Your task to perform on an android device: empty trash in the gmail app Image 0: 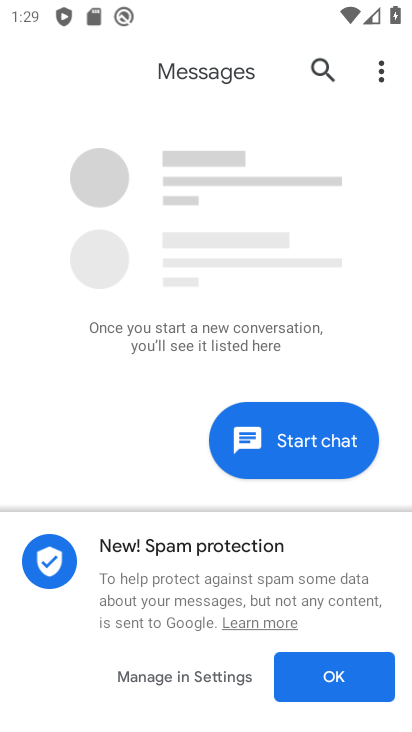
Step 0: press home button
Your task to perform on an android device: empty trash in the gmail app Image 1: 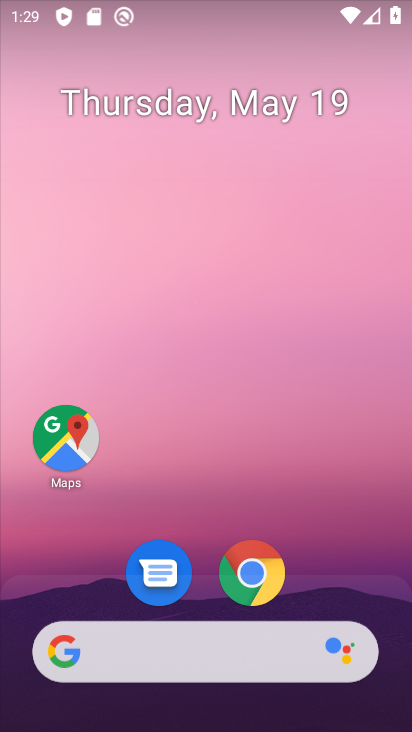
Step 1: drag from (392, 612) to (327, 154)
Your task to perform on an android device: empty trash in the gmail app Image 2: 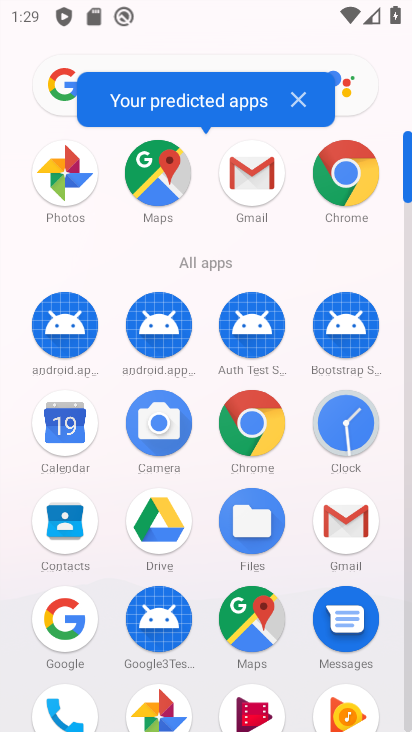
Step 2: click (405, 707)
Your task to perform on an android device: empty trash in the gmail app Image 3: 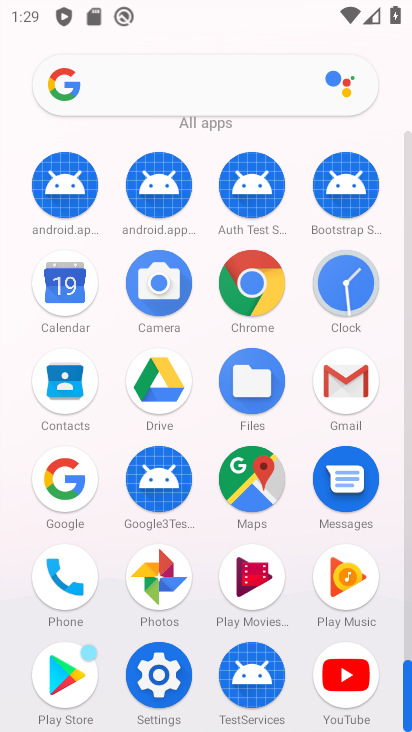
Step 3: click (342, 382)
Your task to perform on an android device: empty trash in the gmail app Image 4: 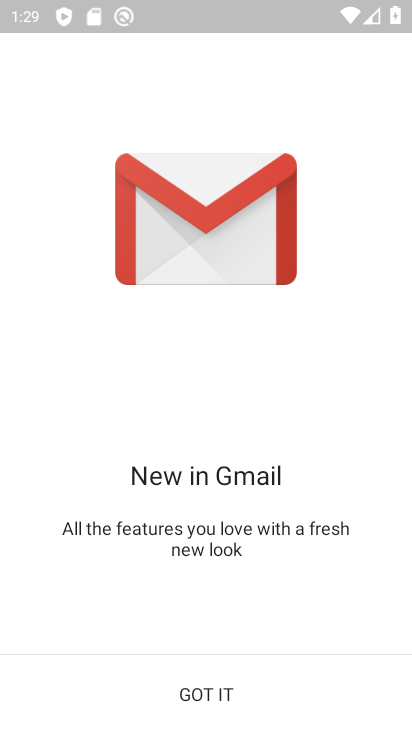
Step 4: click (211, 685)
Your task to perform on an android device: empty trash in the gmail app Image 5: 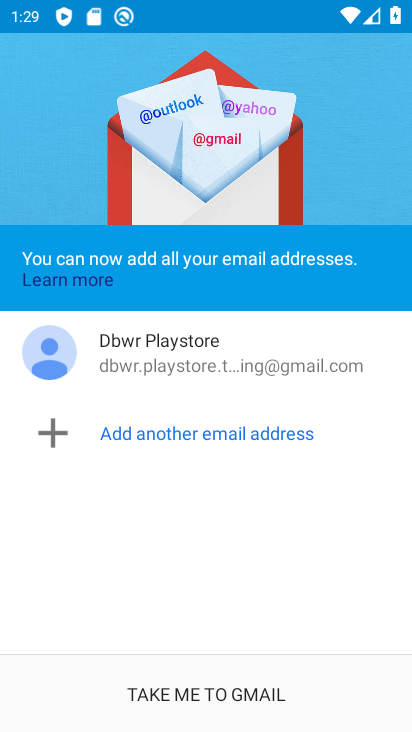
Step 5: click (199, 695)
Your task to perform on an android device: empty trash in the gmail app Image 6: 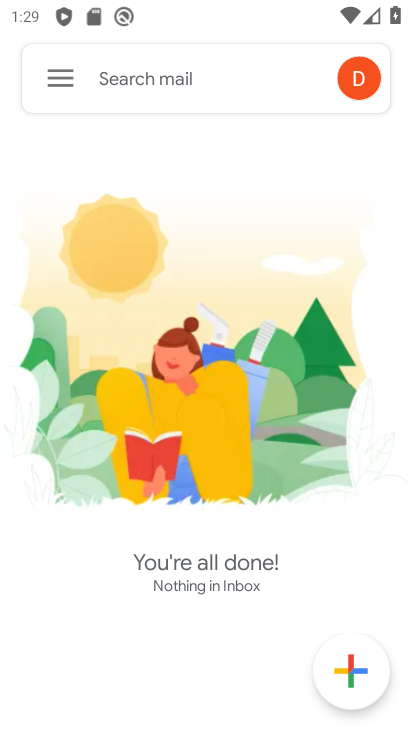
Step 6: click (54, 74)
Your task to perform on an android device: empty trash in the gmail app Image 7: 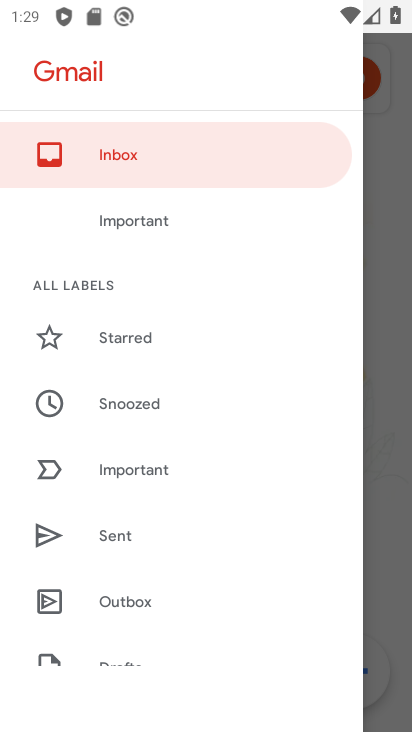
Step 7: drag from (206, 610) to (164, 127)
Your task to perform on an android device: empty trash in the gmail app Image 8: 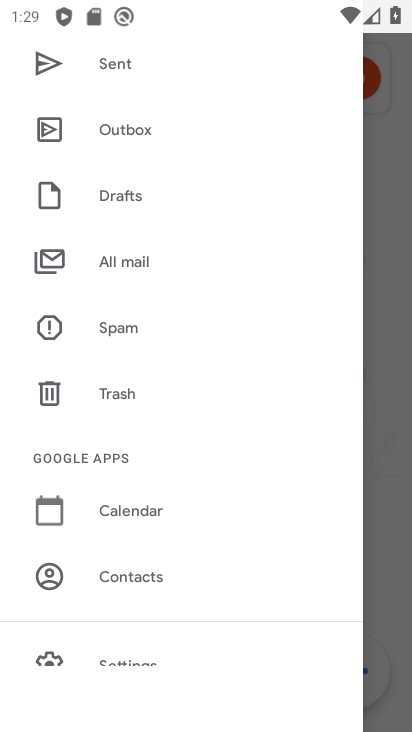
Step 8: click (111, 396)
Your task to perform on an android device: empty trash in the gmail app Image 9: 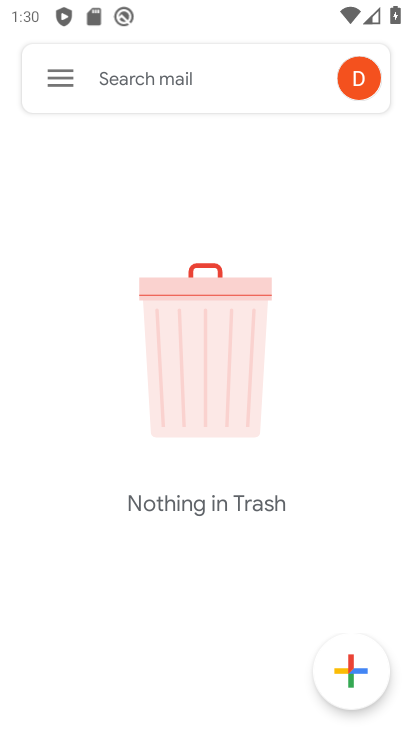
Step 9: task complete